Your task to perform on an android device: Go to Maps Image 0: 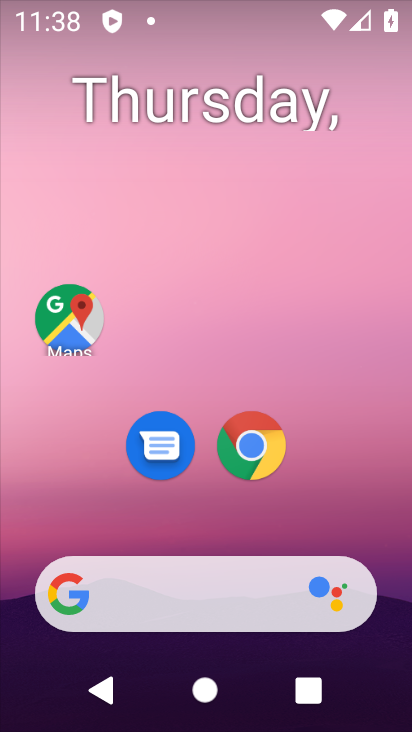
Step 0: drag from (361, 660) to (186, 260)
Your task to perform on an android device: Go to Maps Image 1: 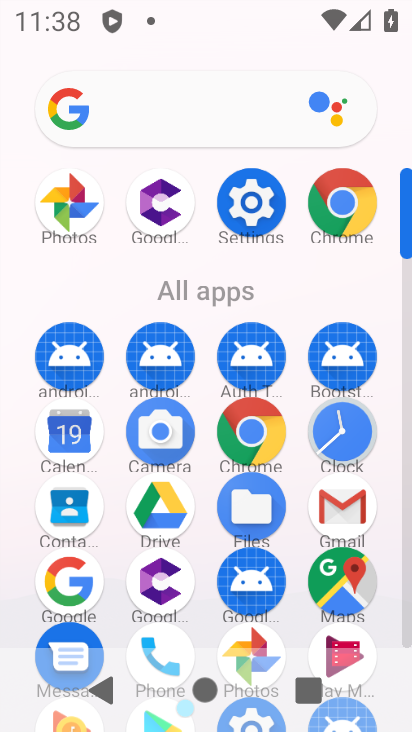
Step 1: click (331, 567)
Your task to perform on an android device: Go to Maps Image 2: 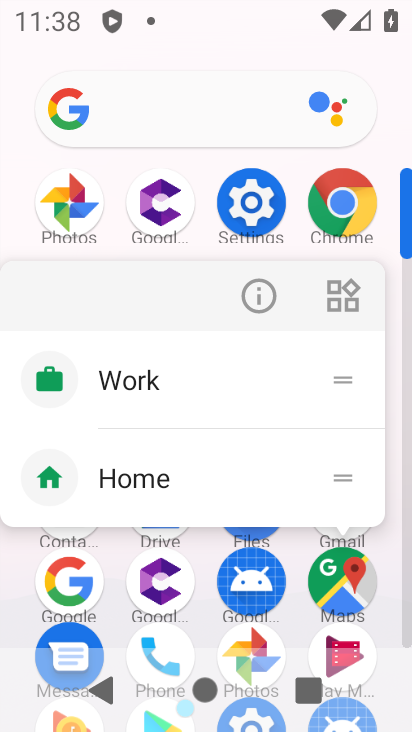
Step 2: click (332, 567)
Your task to perform on an android device: Go to Maps Image 3: 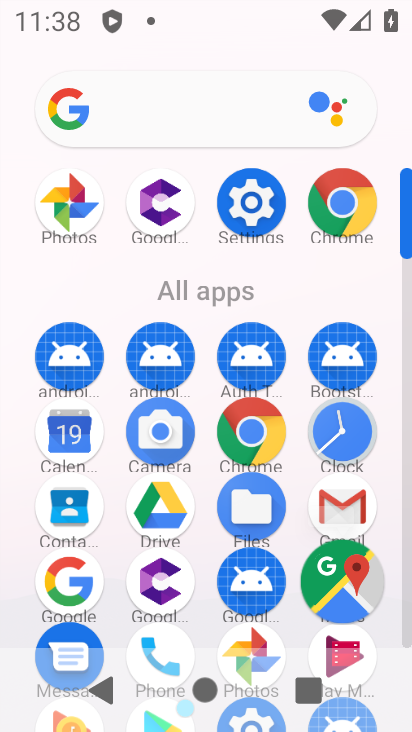
Step 3: click (332, 567)
Your task to perform on an android device: Go to Maps Image 4: 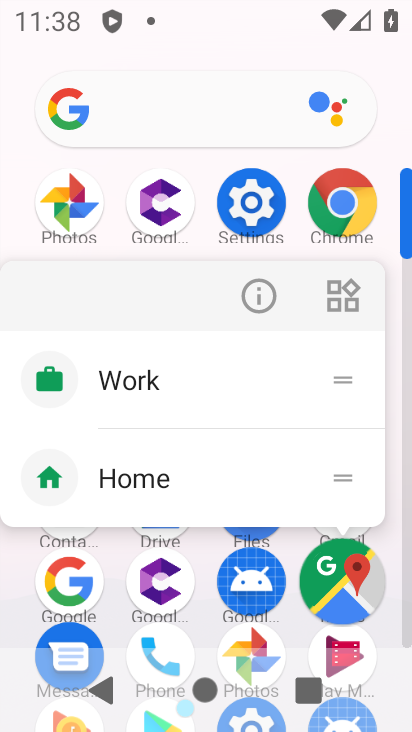
Step 4: click (332, 567)
Your task to perform on an android device: Go to Maps Image 5: 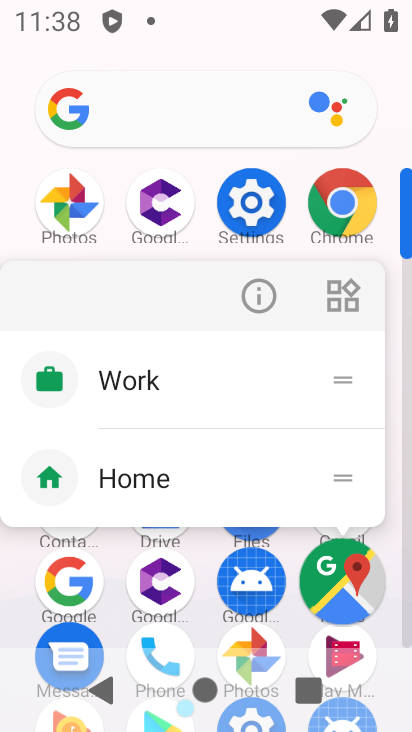
Step 5: click (338, 571)
Your task to perform on an android device: Go to Maps Image 6: 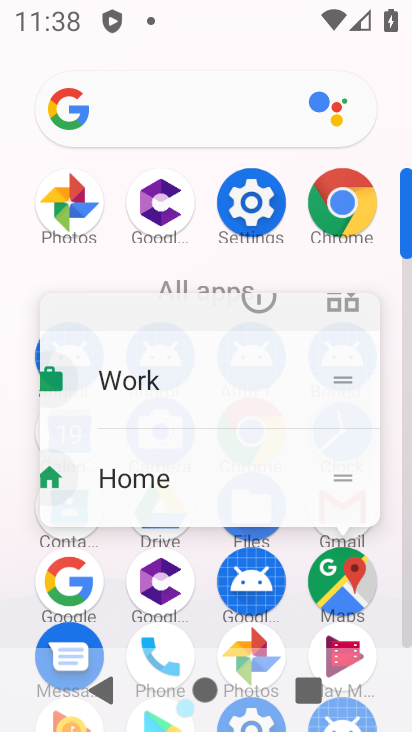
Step 6: click (339, 571)
Your task to perform on an android device: Go to Maps Image 7: 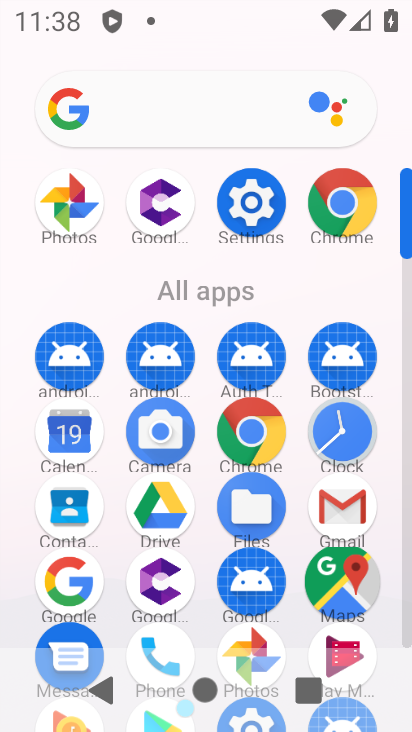
Step 7: click (342, 559)
Your task to perform on an android device: Go to Maps Image 8: 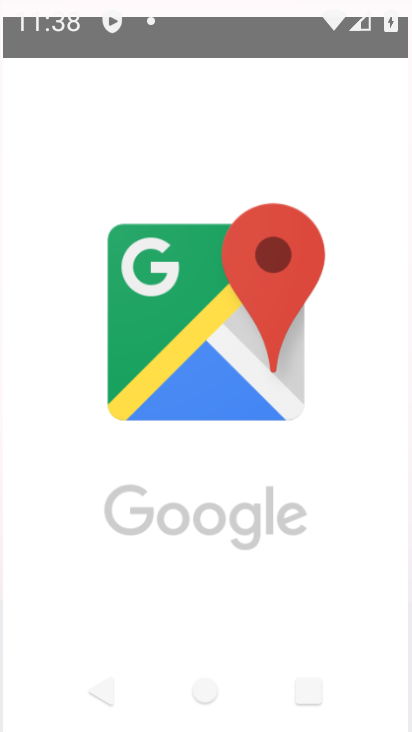
Step 8: click (342, 559)
Your task to perform on an android device: Go to Maps Image 9: 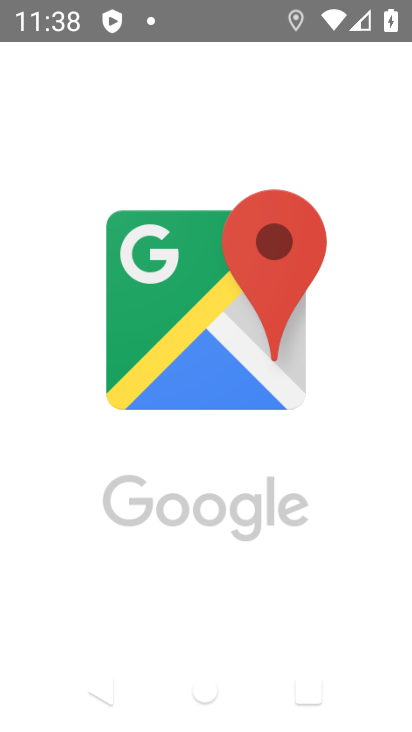
Step 9: click (342, 559)
Your task to perform on an android device: Go to Maps Image 10: 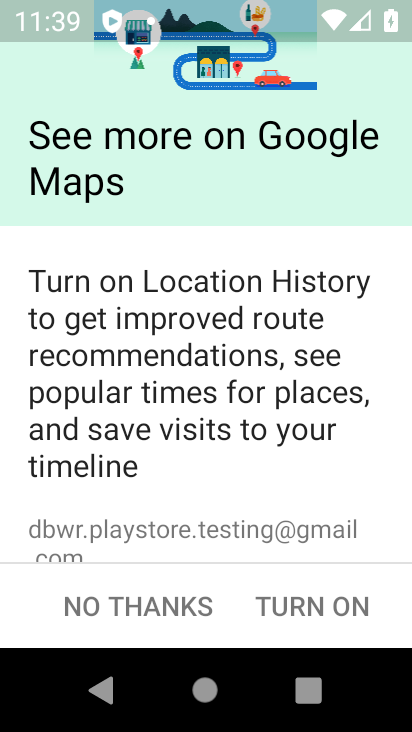
Step 10: click (155, 605)
Your task to perform on an android device: Go to Maps Image 11: 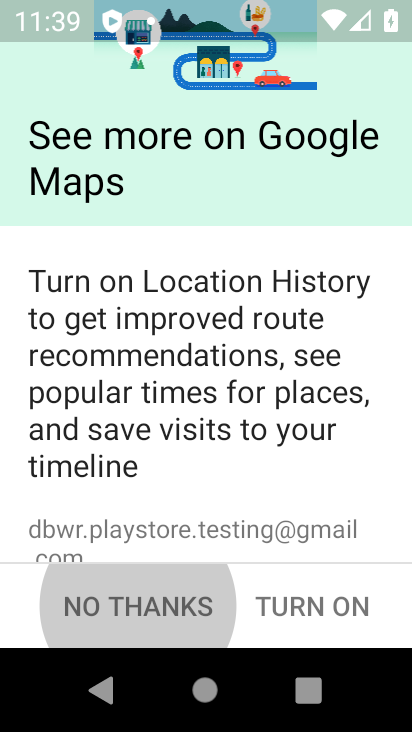
Step 11: click (155, 605)
Your task to perform on an android device: Go to Maps Image 12: 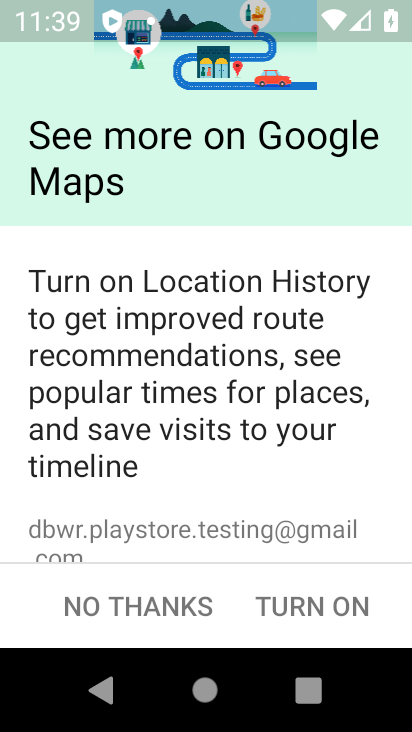
Step 12: click (155, 603)
Your task to perform on an android device: Go to Maps Image 13: 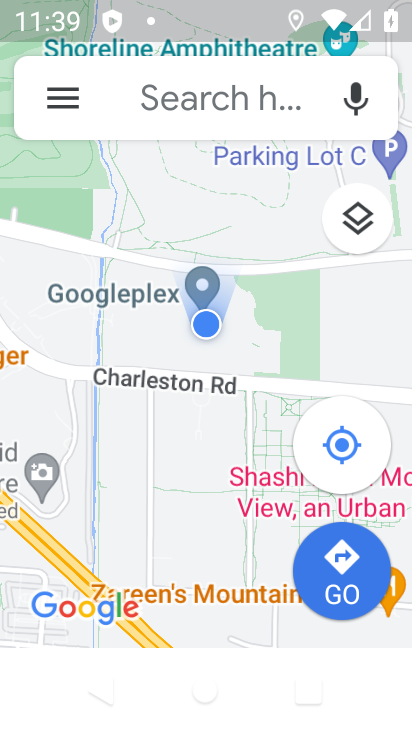
Step 13: task complete